Your task to perform on an android device: Open calendar and show me the second week of next month Image 0: 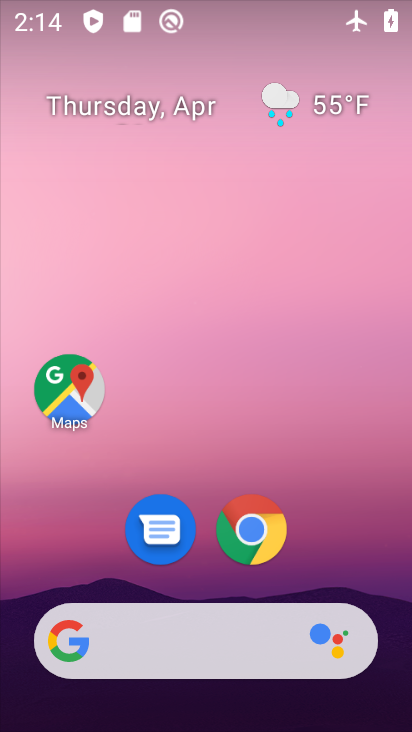
Step 0: drag from (212, 596) to (139, 166)
Your task to perform on an android device: Open calendar and show me the second week of next month Image 1: 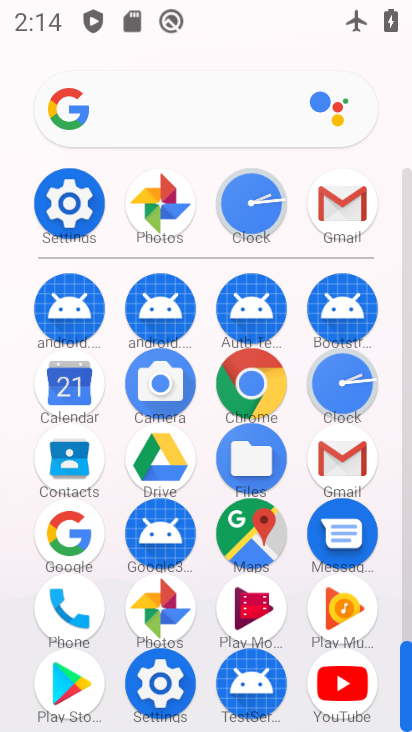
Step 1: click (77, 398)
Your task to perform on an android device: Open calendar and show me the second week of next month Image 2: 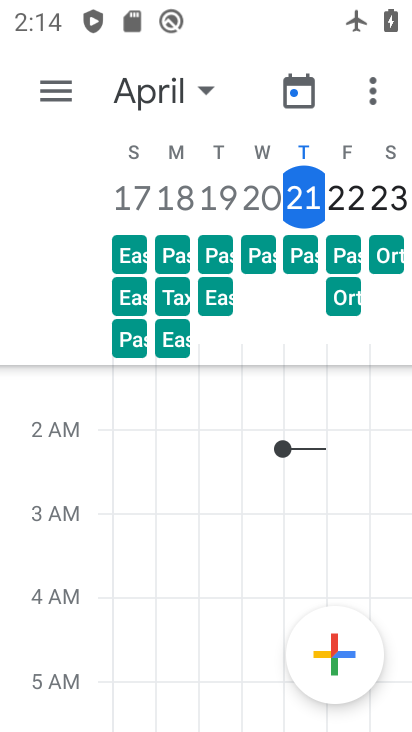
Step 2: click (179, 99)
Your task to perform on an android device: Open calendar and show me the second week of next month Image 3: 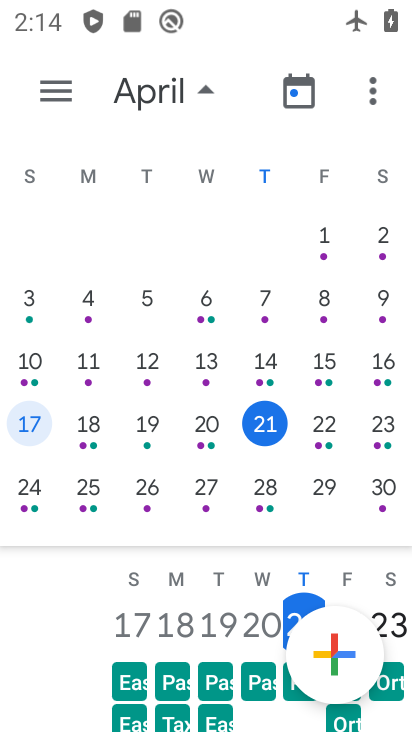
Step 3: drag from (337, 388) to (0, 400)
Your task to perform on an android device: Open calendar and show me the second week of next month Image 4: 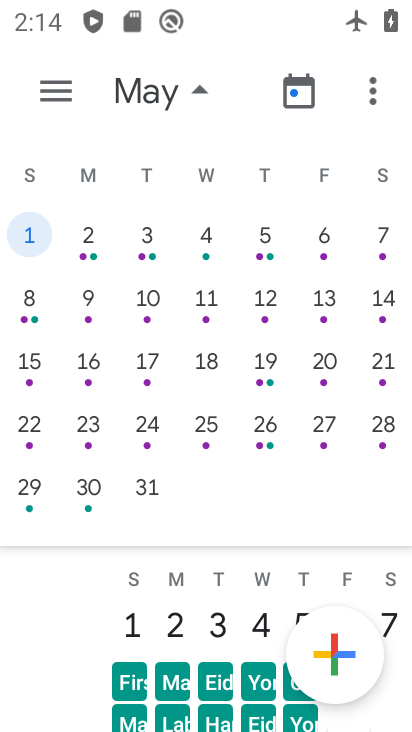
Step 4: click (29, 306)
Your task to perform on an android device: Open calendar and show me the second week of next month Image 5: 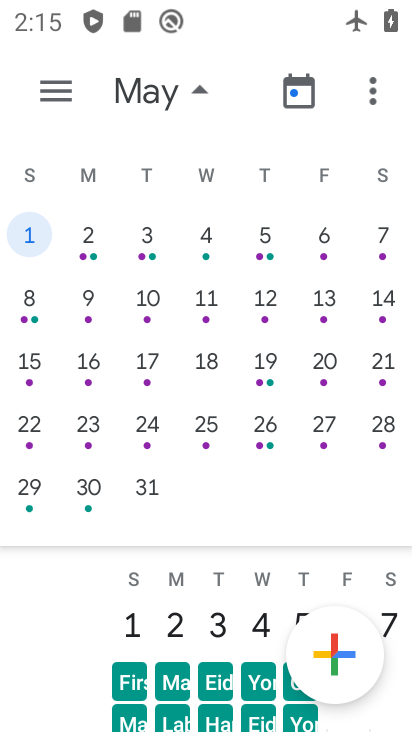
Step 5: task complete